Your task to perform on an android device: Open eBay Image 0: 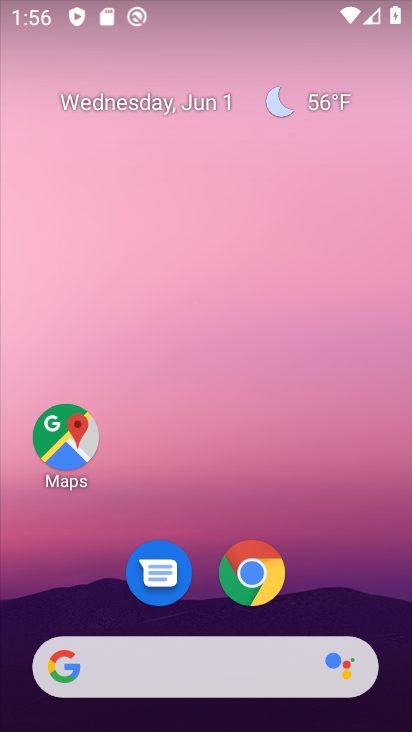
Step 0: click (321, 1)
Your task to perform on an android device: Open eBay Image 1: 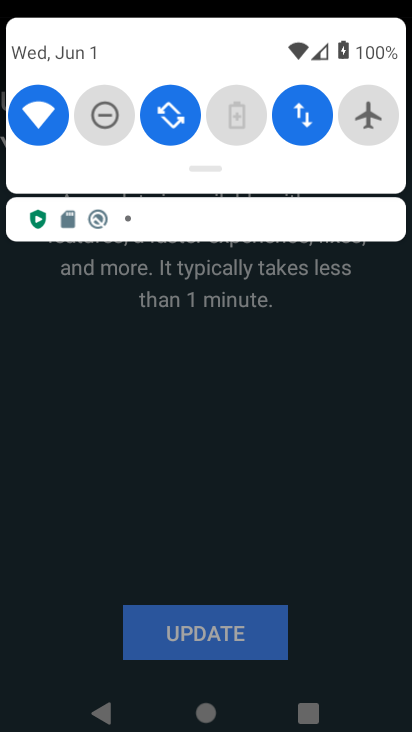
Step 1: drag from (210, 592) to (252, 137)
Your task to perform on an android device: Open eBay Image 2: 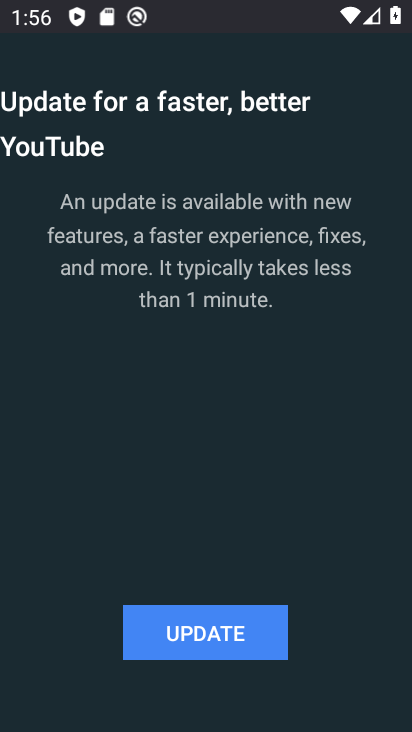
Step 2: press home button
Your task to perform on an android device: Open eBay Image 3: 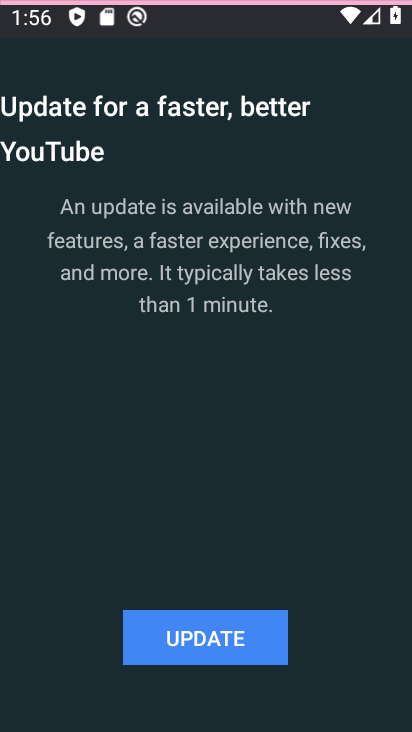
Step 3: drag from (174, 610) to (256, 15)
Your task to perform on an android device: Open eBay Image 4: 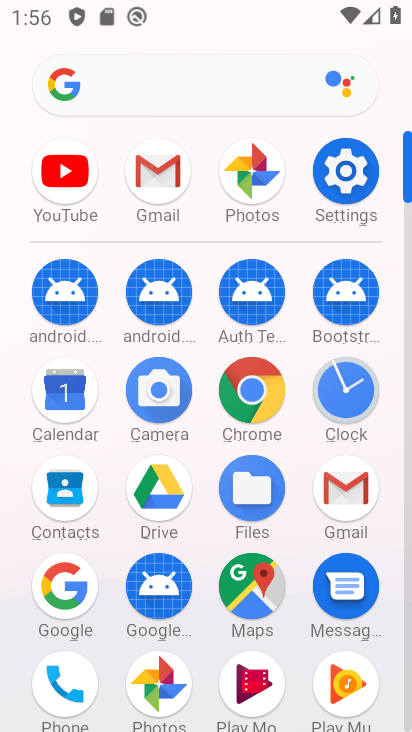
Step 4: click (170, 104)
Your task to perform on an android device: Open eBay Image 5: 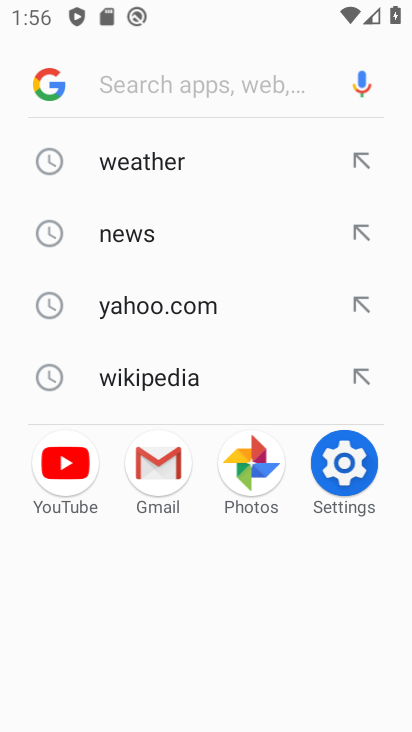
Step 5: type "eBay"
Your task to perform on an android device: Open eBay Image 6: 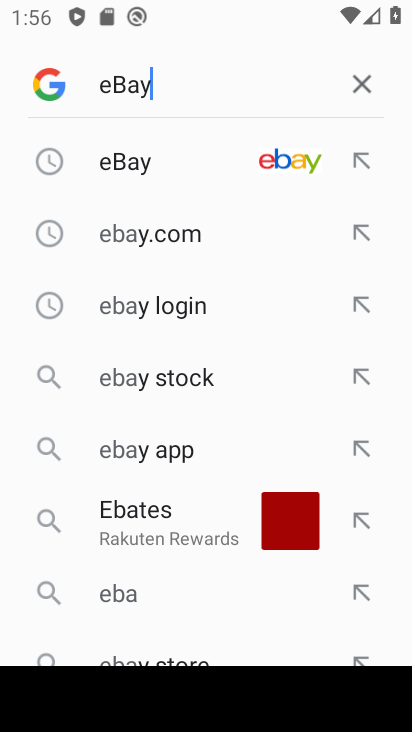
Step 6: type ""
Your task to perform on an android device: Open eBay Image 7: 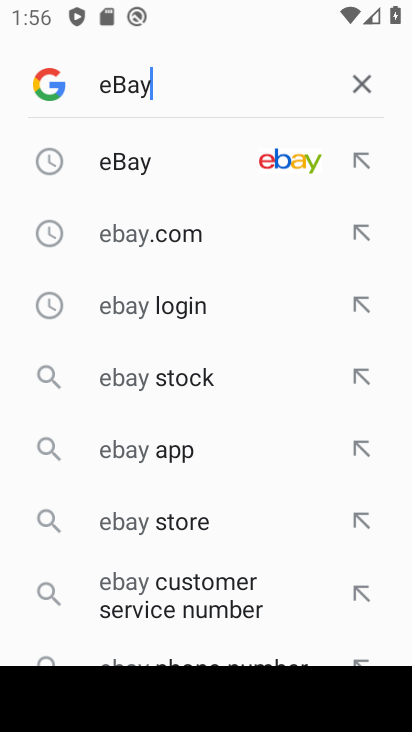
Step 7: click (258, 154)
Your task to perform on an android device: Open eBay Image 8: 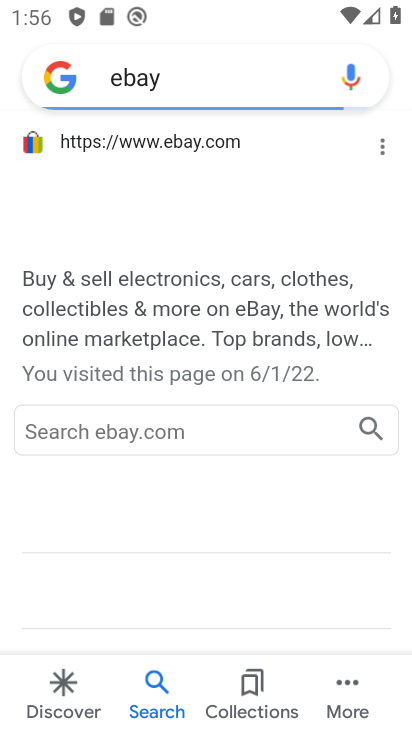
Step 8: drag from (198, 518) to (212, 249)
Your task to perform on an android device: Open eBay Image 9: 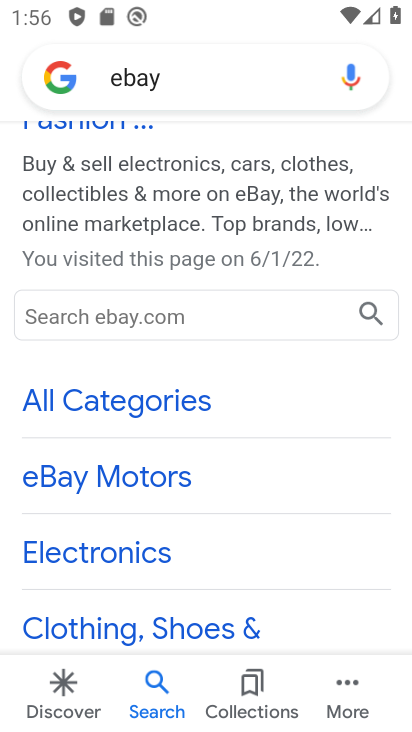
Step 9: drag from (141, 236) to (280, 628)
Your task to perform on an android device: Open eBay Image 10: 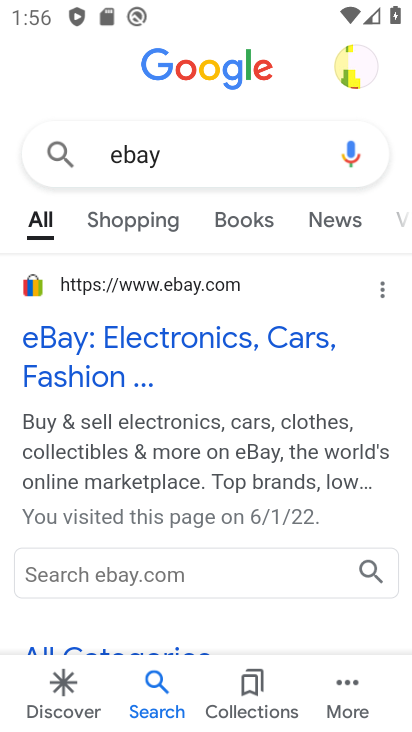
Step 10: click (120, 337)
Your task to perform on an android device: Open eBay Image 11: 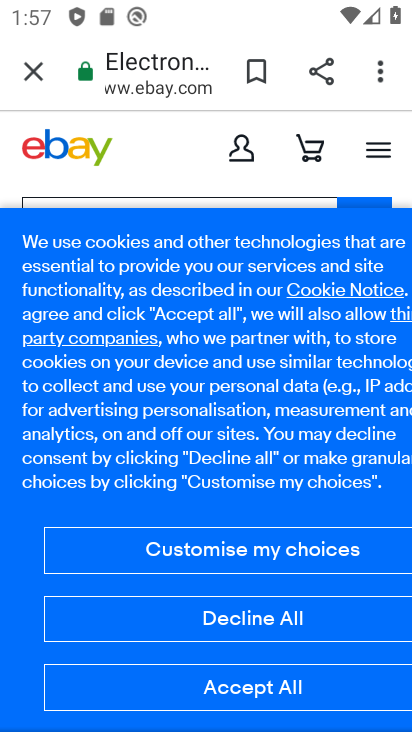
Step 11: task complete